Your task to perform on an android device: allow cookies in the chrome app Image 0: 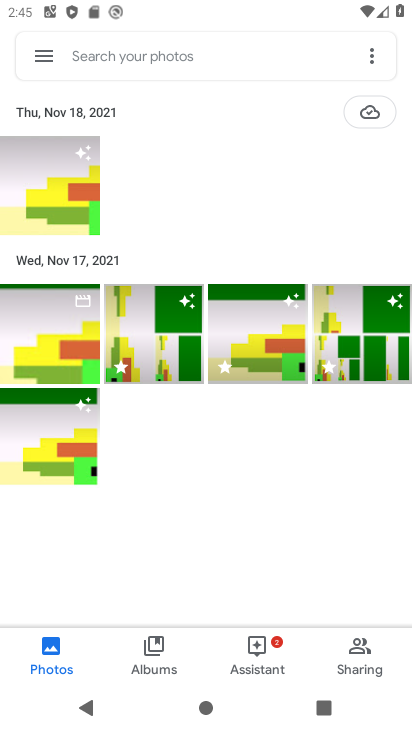
Step 0: press home button
Your task to perform on an android device: allow cookies in the chrome app Image 1: 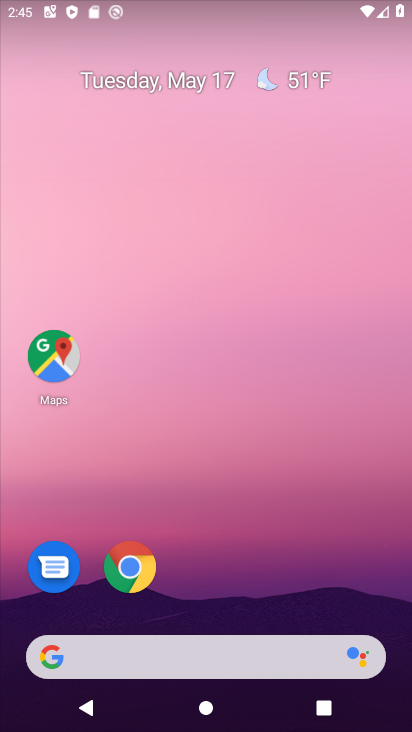
Step 1: click (133, 568)
Your task to perform on an android device: allow cookies in the chrome app Image 2: 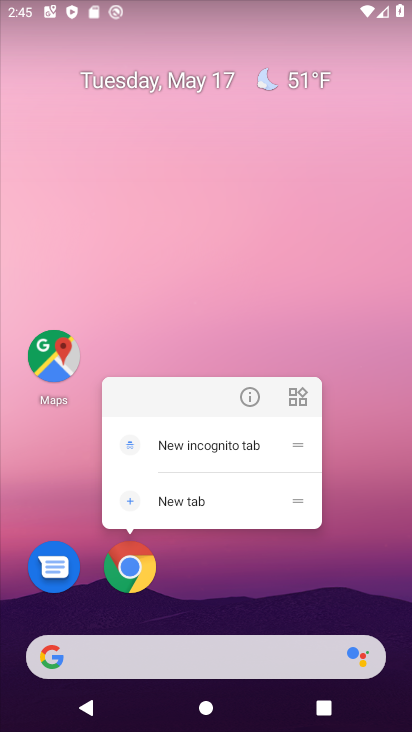
Step 2: click (132, 580)
Your task to perform on an android device: allow cookies in the chrome app Image 3: 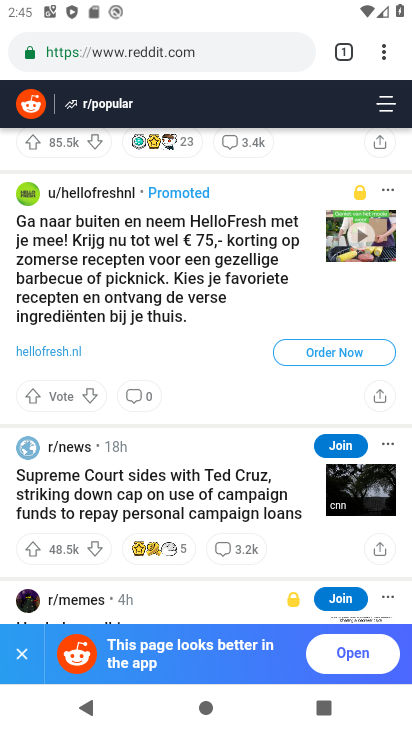
Step 3: drag from (379, 44) to (210, 607)
Your task to perform on an android device: allow cookies in the chrome app Image 4: 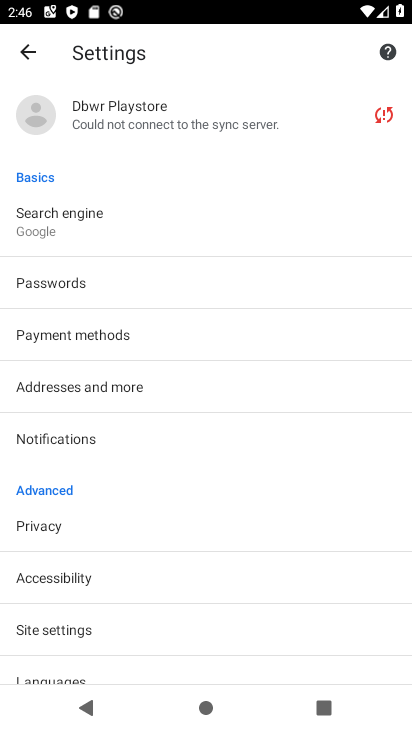
Step 4: click (108, 620)
Your task to perform on an android device: allow cookies in the chrome app Image 5: 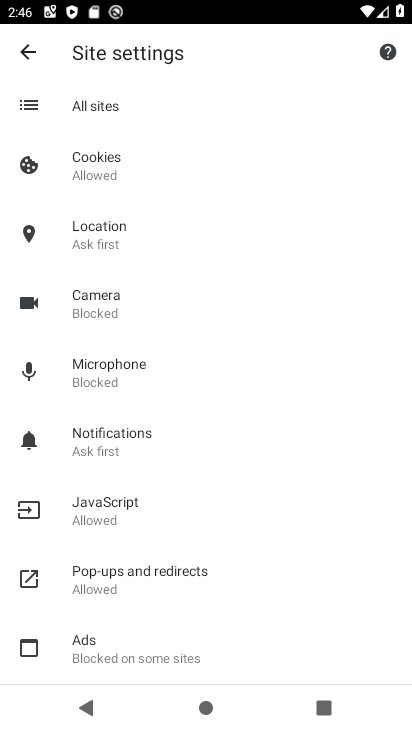
Step 5: click (97, 165)
Your task to perform on an android device: allow cookies in the chrome app Image 6: 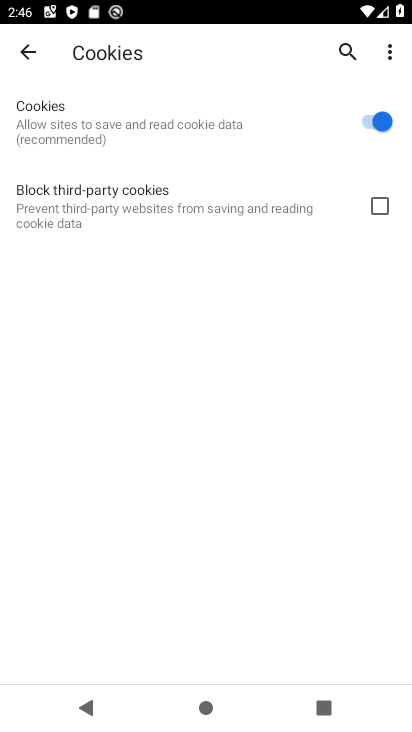
Step 6: task complete